Your task to perform on an android device: empty trash in google photos Image 0: 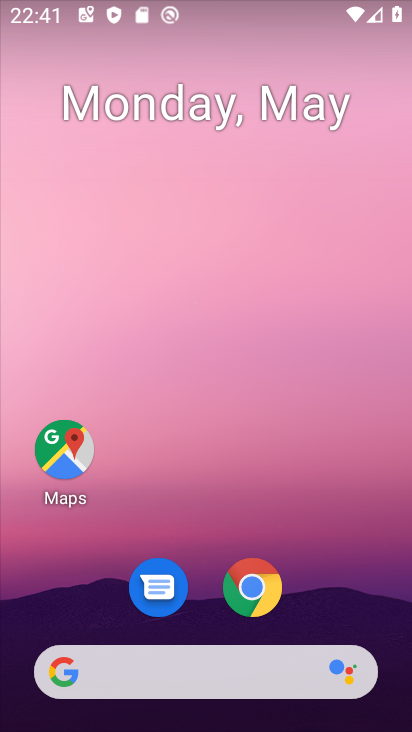
Step 0: drag from (226, 647) to (399, 433)
Your task to perform on an android device: empty trash in google photos Image 1: 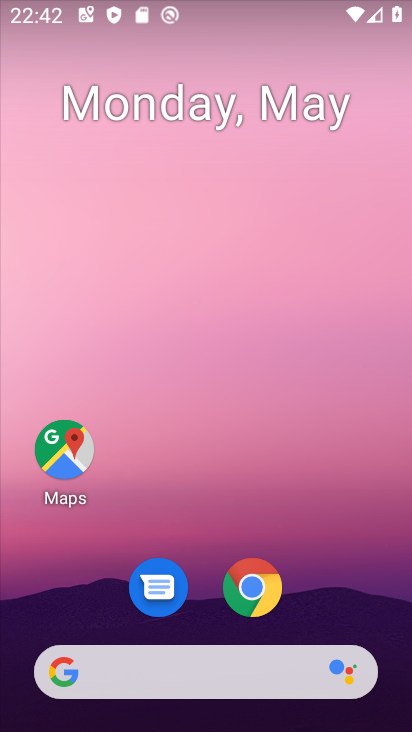
Step 1: drag from (214, 643) to (157, 2)
Your task to perform on an android device: empty trash in google photos Image 2: 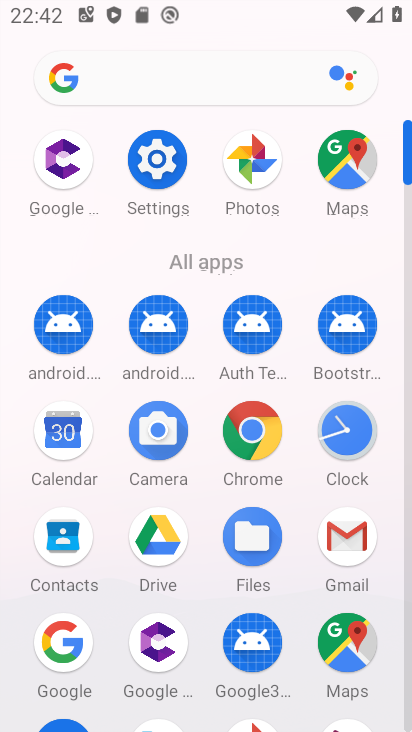
Step 2: drag from (187, 610) to (112, 3)
Your task to perform on an android device: empty trash in google photos Image 3: 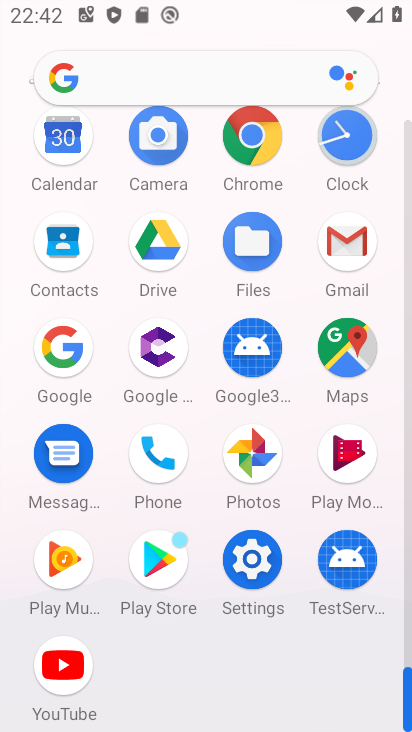
Step 3: click (251, 461)
Your task to perform on an android device: empty trash in google photos Image 4: 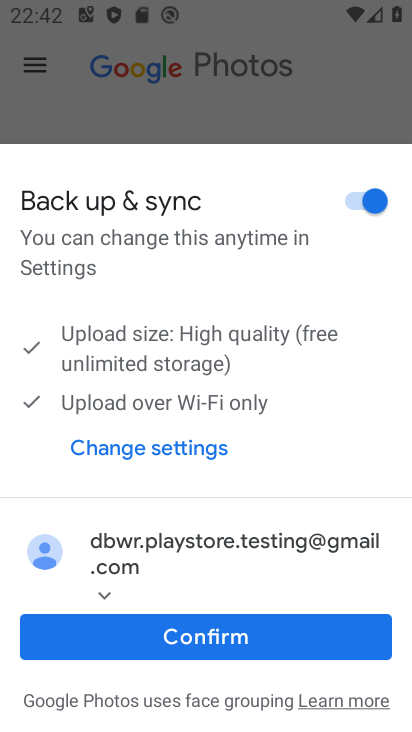
Step 4: click (109, 642)
Your task to perform on an android device: empty trash in google photos Image 5: 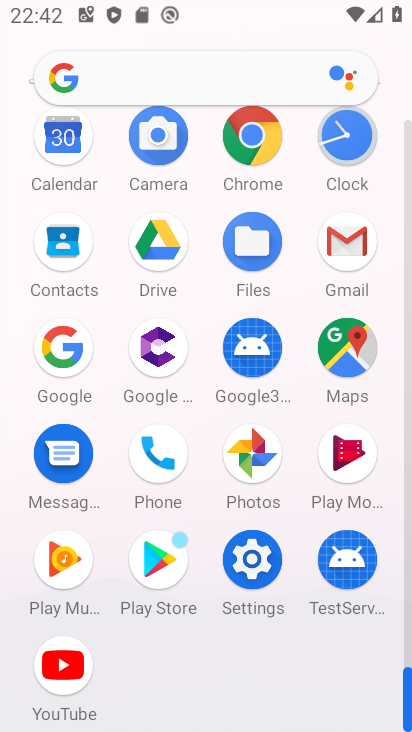
Step 5: click (236, 471)
Your task to perform on an android device: empty trash in google photos Image 6: 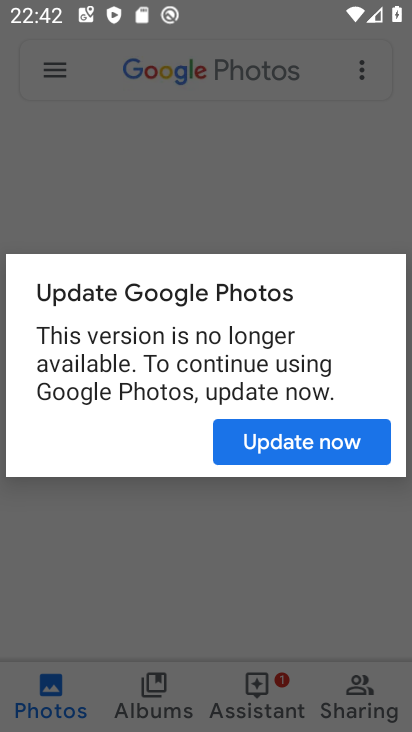
Step 6: click (230, 574)
Your task to perform on an android device: empty trash in google photos Image 7: 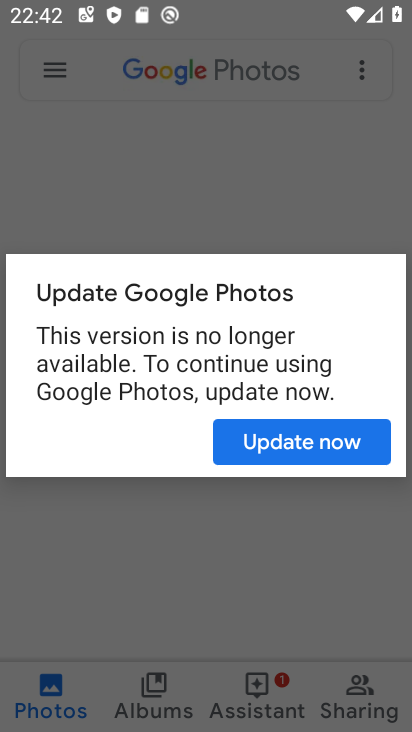
Step 7: click (267, 449)
Your task to perform on an android device: empty trash in google photos Image 8: 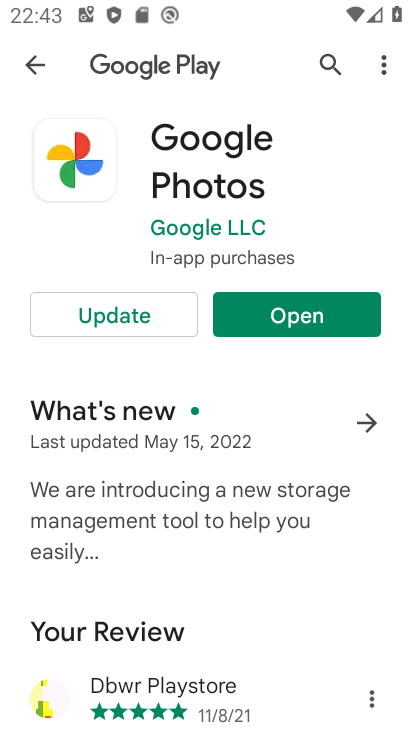
Step 8: click (281, 313)
Your task to perform on an android device: empty trash in google photos Image 9: 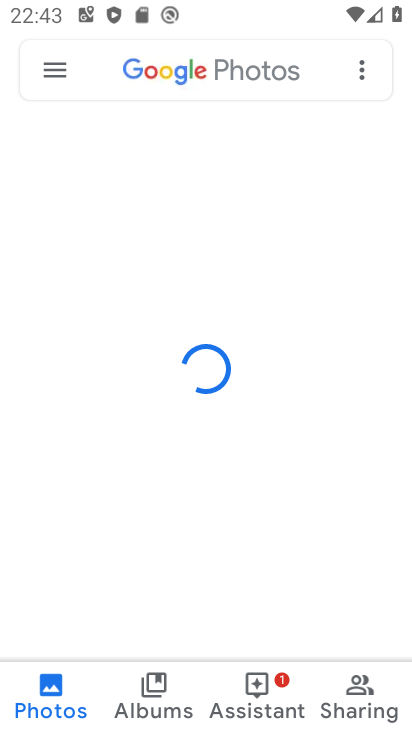
Step 9: click (57, 71)
Your task to perform on an android device: empty trash in google photos Image 10: 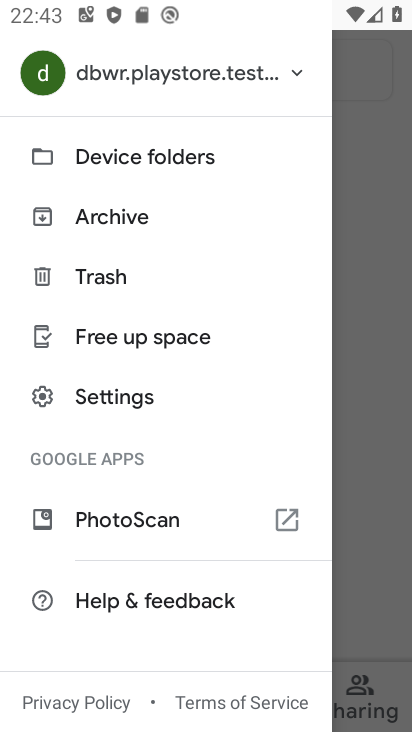
Step 10: click (118, 273)
Your task to perform on an android device: empty trash in google photos Image 11: 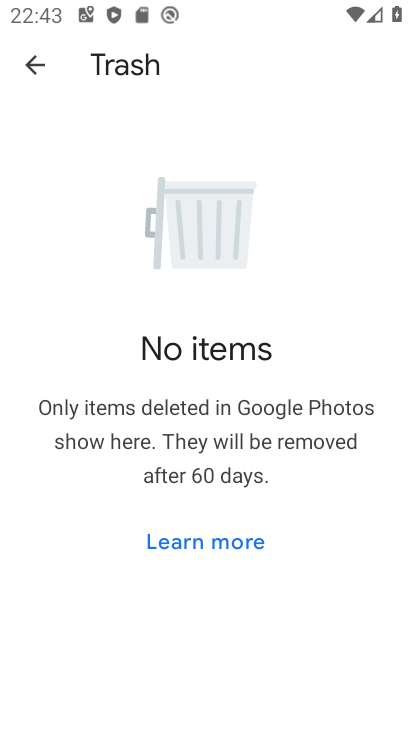
Step 11: task complete